Your task to perform on an android device: check storage Image 0: 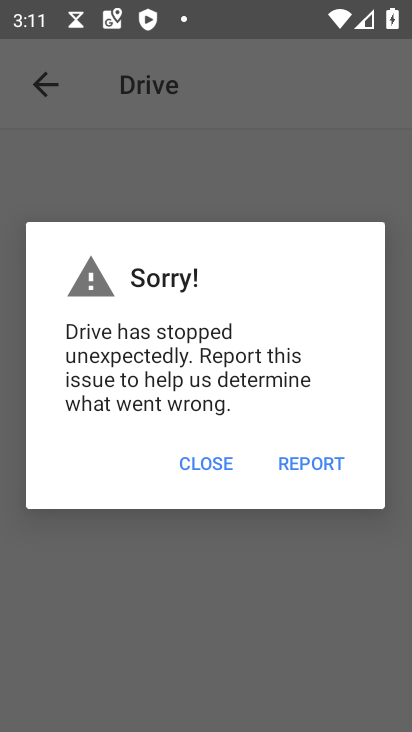
Step 0: press home button
Your task to perform on an android device: check storage Image 1: 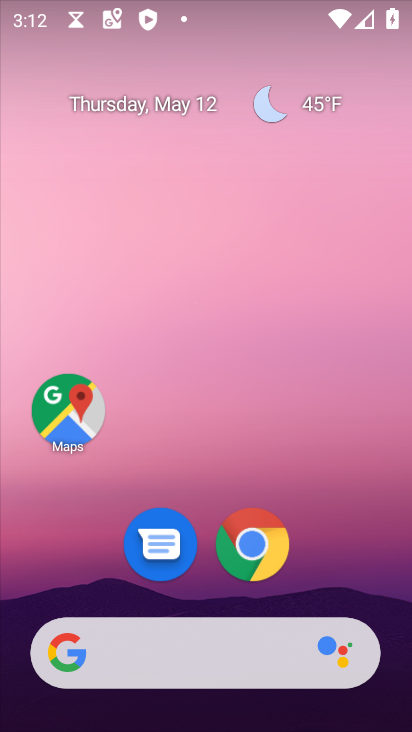
Step 1: drag from (193, 585) to (261, 0)
Your task to perform on an android device: check storage Image 2: 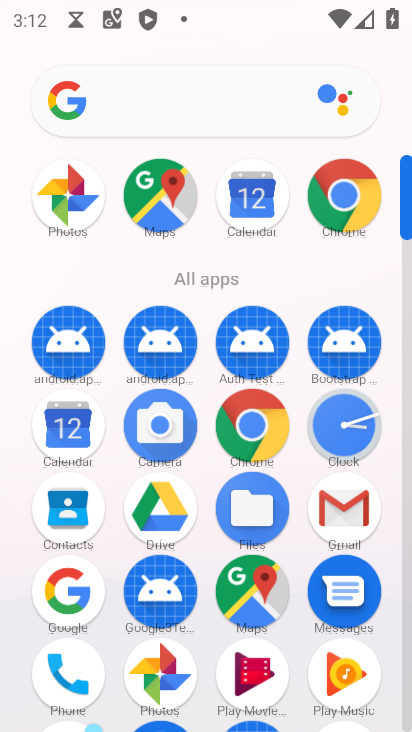
Step 2: drag from (285, 544) to (272, 194)
Your task to perform on an android device: check storage Image 3: 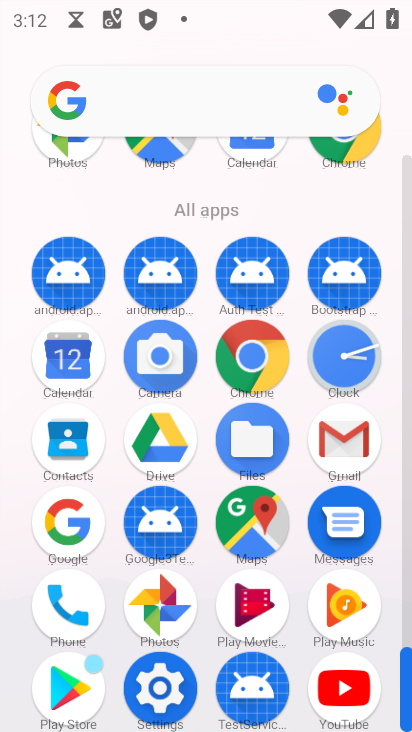
Step 3: click (153, 698)
Your task to perform on an android device: check storage Image 4: 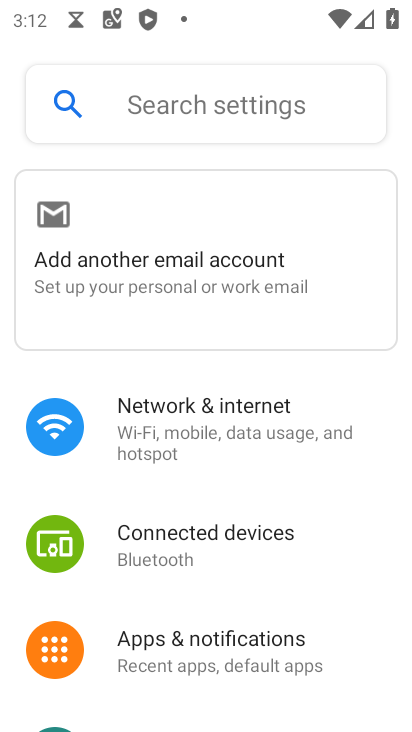
Step 4: drag from (222, 563) to (222, 327)
Your task to perform on an android device: check storage Image 5: 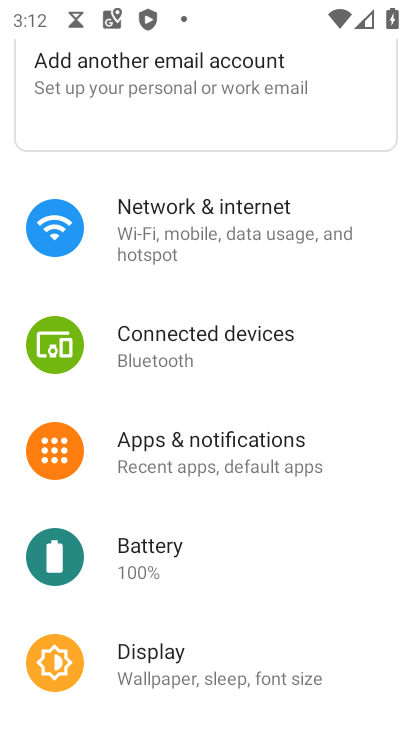
Step 5: drag from (277, 588) to (255, 453)
Your task to perform on an android device: check storage Image 6: 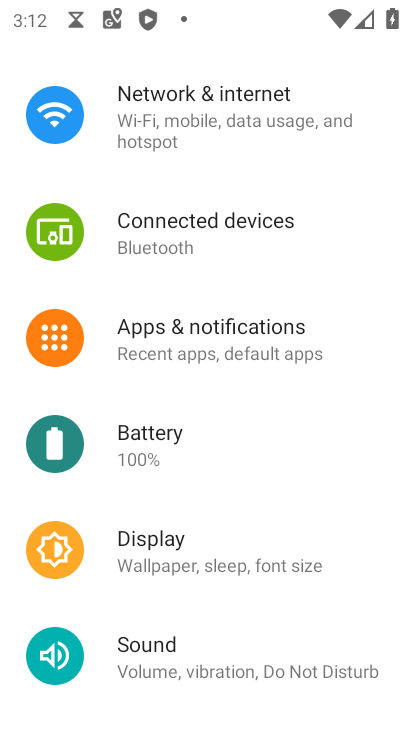
Step 6: drag from (261, 624) to (259, 489)
Your task to perform on an android device: check storage Image 7: 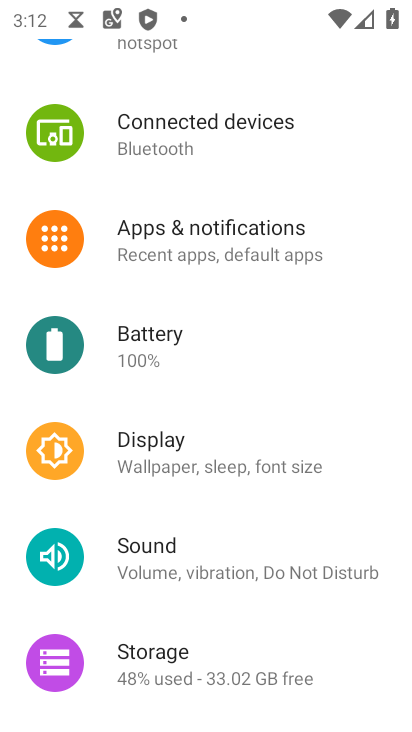
Step 7: click (217, 659)
Your task to perform on an android device: check storage Image 8: 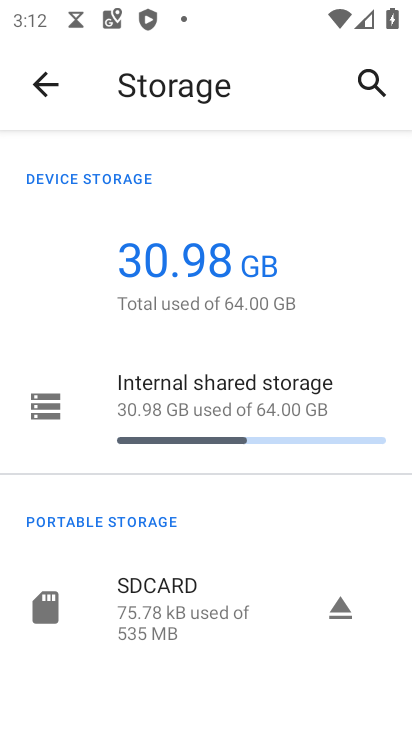
Step 8: task complete